Your task to perform on an android device: Show me popular games on the Play Store Image 0: 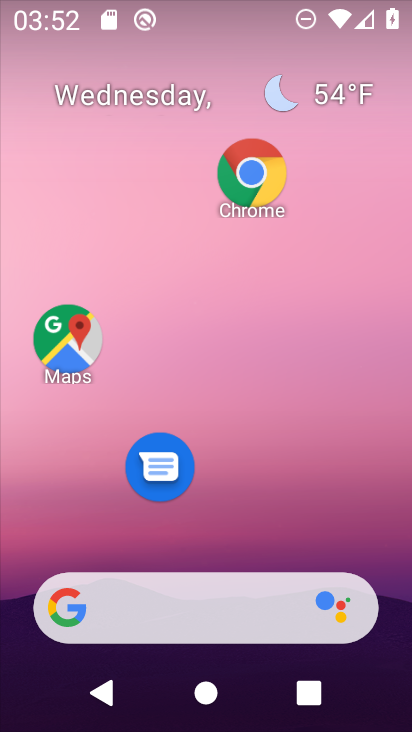
Step 0: drag from (255, 535) to (311, 74)
Your task to perform on an android device: Show me popular games on the Play Store Image 1: 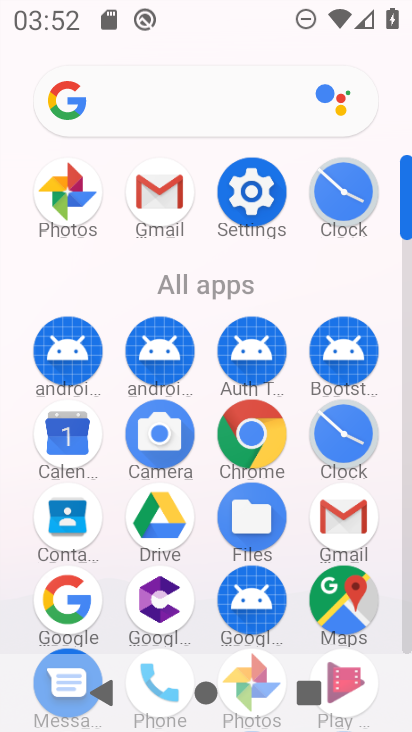
Step 1: drag from (202, 573) to (254, 198)
Your task to perform on an android device: Show me popular games on the Play Store Image 2: 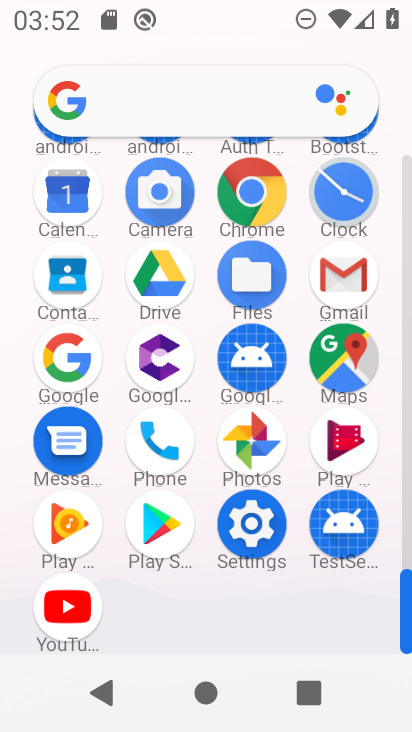
Step 2: click (155, 514)
Your task to perform on an android device: Show me popular games on the Play Store Image 3: 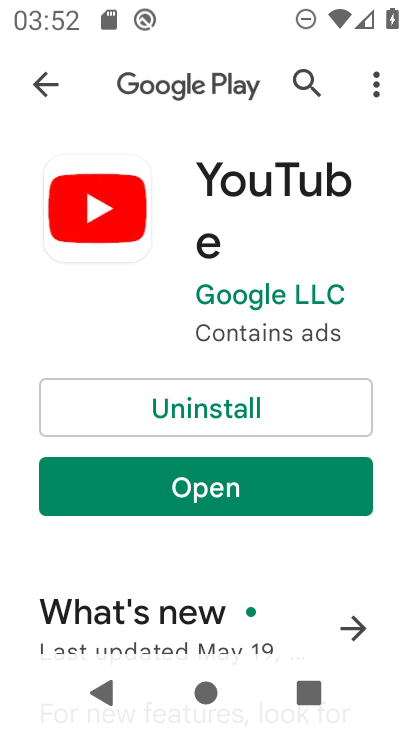
Step 3: click (42, 77)
Your task to perform on an android device: Show me popular games on the Play Store Image 4: 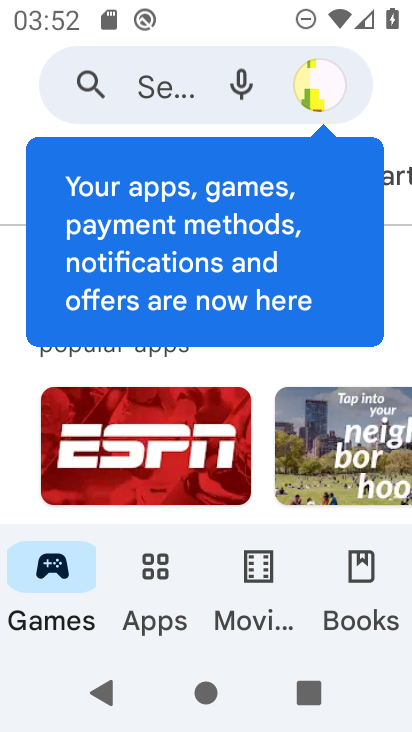
Step 4: drag from (267, 478) to (266, 69)
Your task to perform on an android device: Show me popular games on the Play Store Image 5: 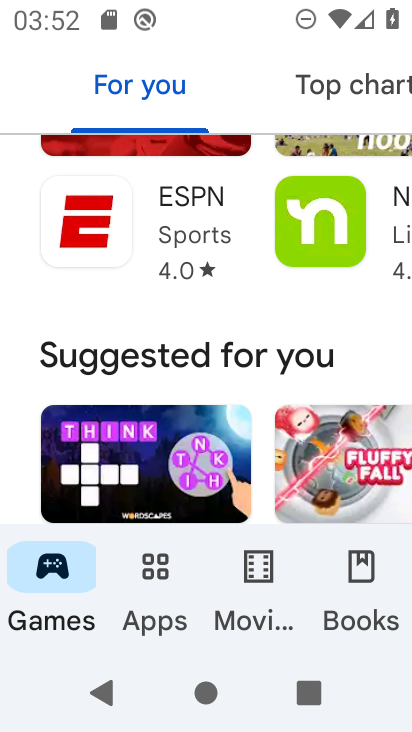
Step 5: drag from (246, 436) to (278, 33)
Your task to perform on an android device: Show me popular games on the Play Store Image 6: 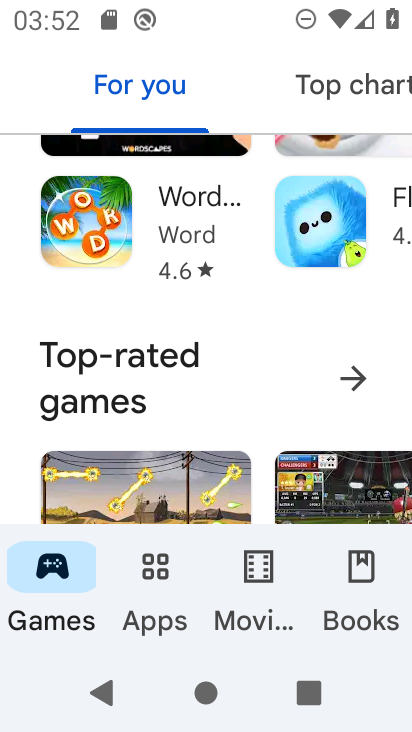
Step 6: drag from (182, 414) to (227, 92)
Your task to perform on an android device: Show me popular games on the Play Store Image 7: 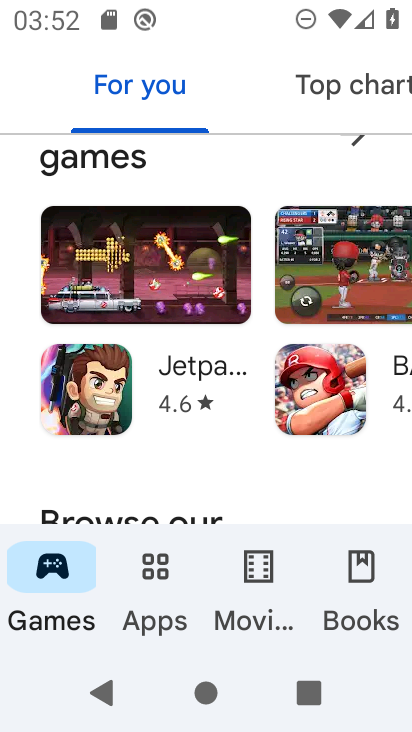
Step 7: drag from (230, 459) to (291, 149)
Your task to perform on an android device: Show me popular games on the Play Store Image 8: 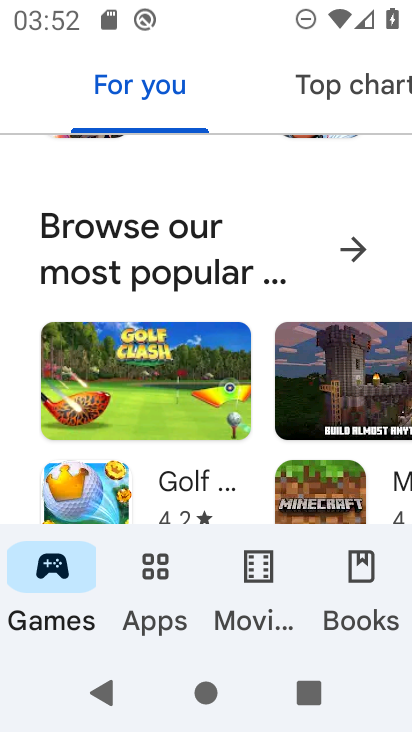
Step 8: click (349, 241)
Your task to perform on an android device: Show me popular games on the Play Store Image 9: 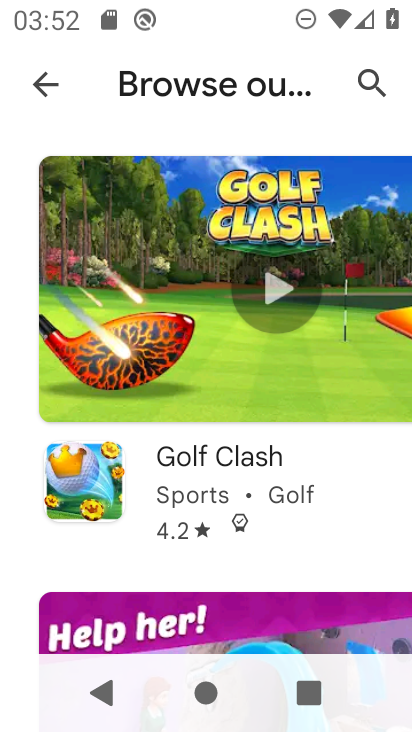
Step 9: task complete